Your task to perform on an android device: check battery use Image 0: 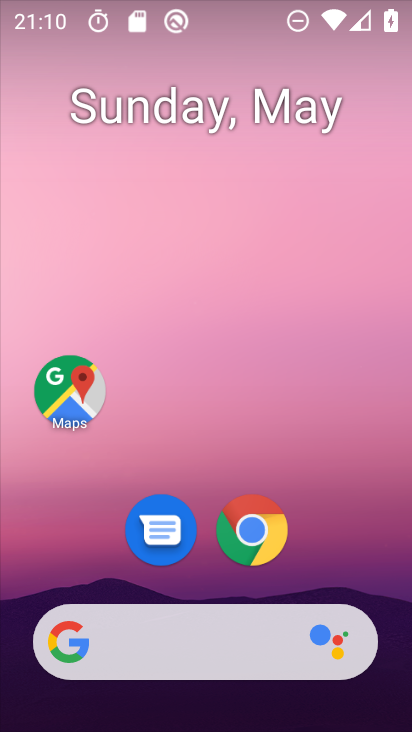
Step 0: drag from (245, 674) to (409, 172)
Your task to perform on an android device: check battery use Image 1: 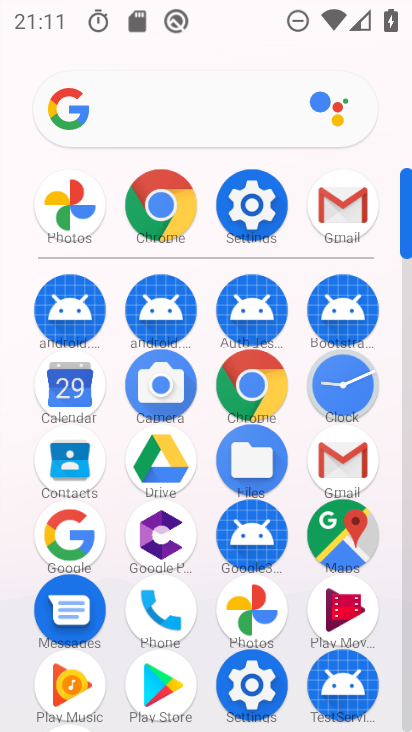
Step 1: click (285, 215)
Your task to perform on an android device: check battery use Image 2: 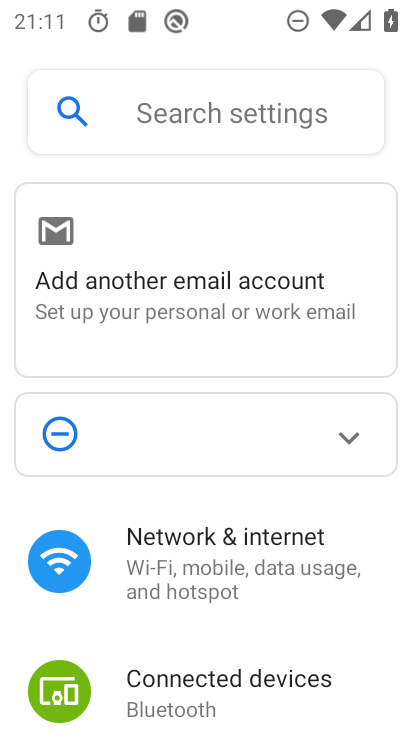
Step 2: drag from (250, 650) to (276, 269)
Your task to perform on an android device: check battery use Image 3: 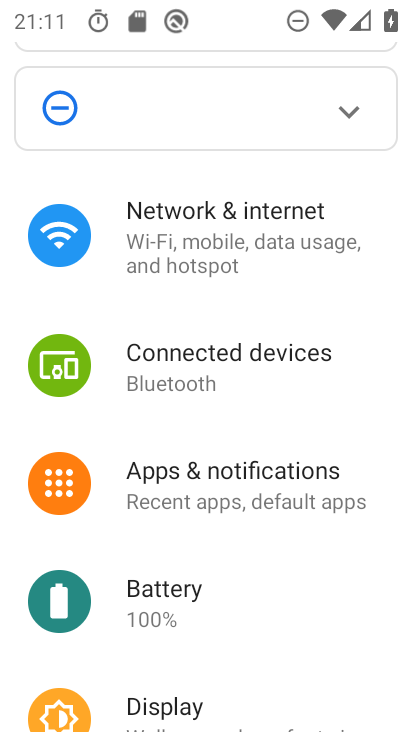
Step 3: click (136, 596)
Your task to perform on an android device: check battery use Image 4: 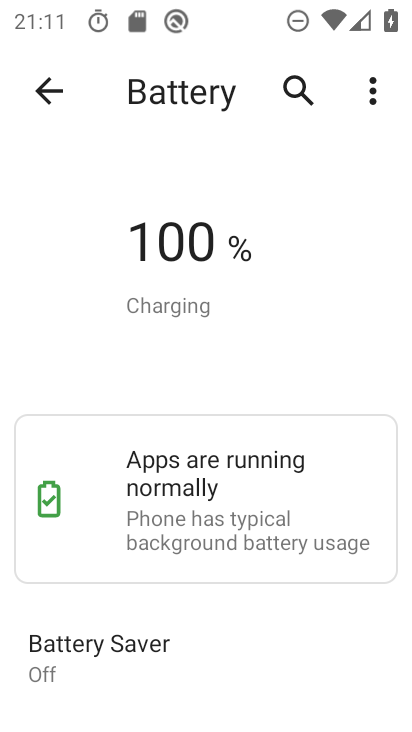
Step 4: task complete